Your task to perform on an android device: Open Yahoo.com Image 0: 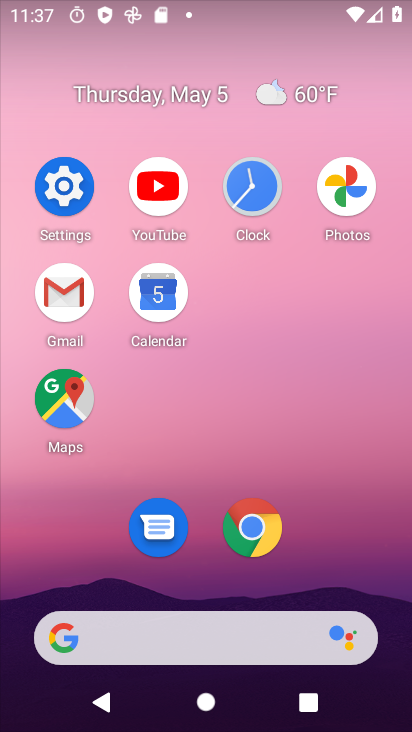
Step 0: click (244, 552)
Your task to perform on an android device: Open Yahoo.com Image 1: 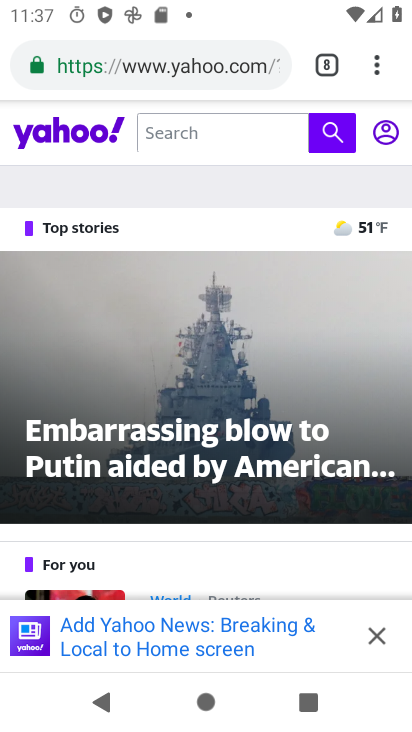
Step 1: task complete